Your task to perform on an android device: install app "Paramount+ | Peak Streaming" Image 0: 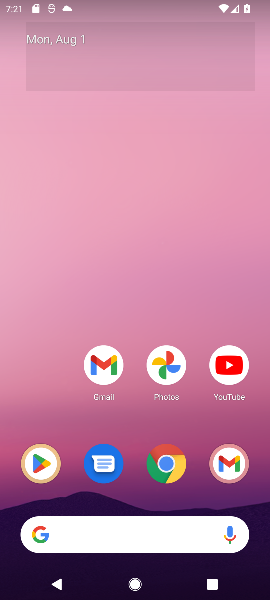
Step 0: click (48, 470)
Your task to perform on an android device: install app "Paramount+ | Peak Streaming" Image 1: 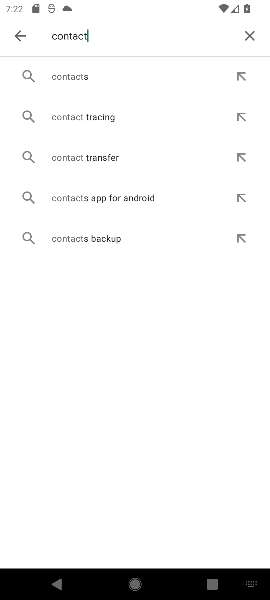
Step 1: task complete